Your task to perform on an android device: Open the map Image 0: 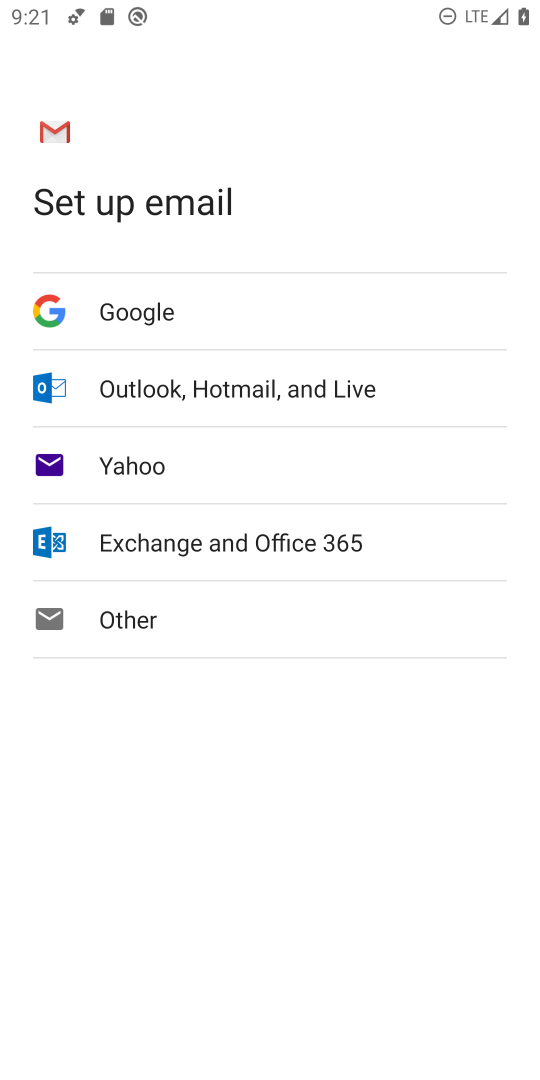
Step 0: press home button
Your task to perform on an android device: Open the map Image 1: 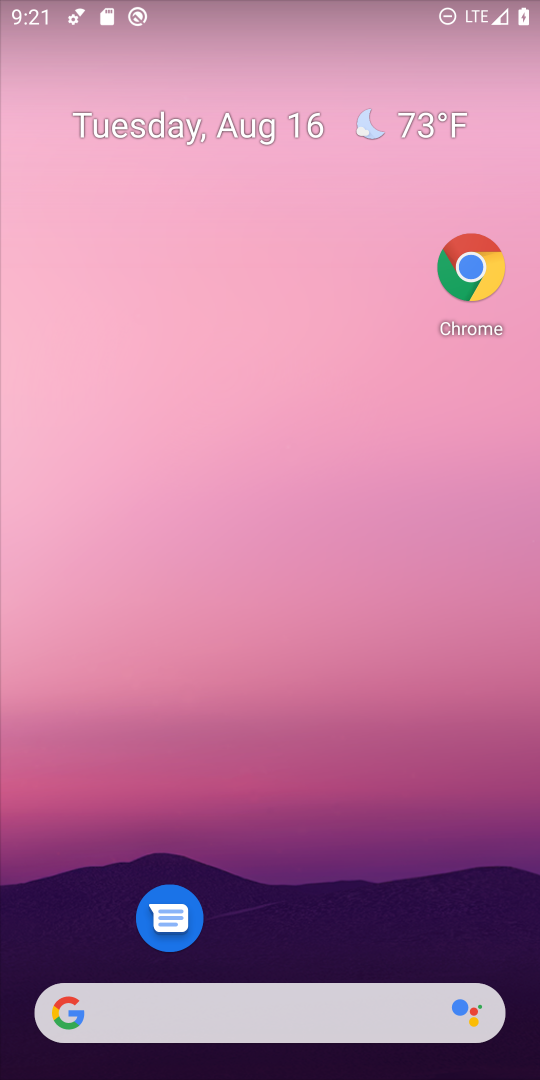
Step 1: drag from (288, 923) to (236, 134)
Your task to perform on an android device: Open the map Image 2: 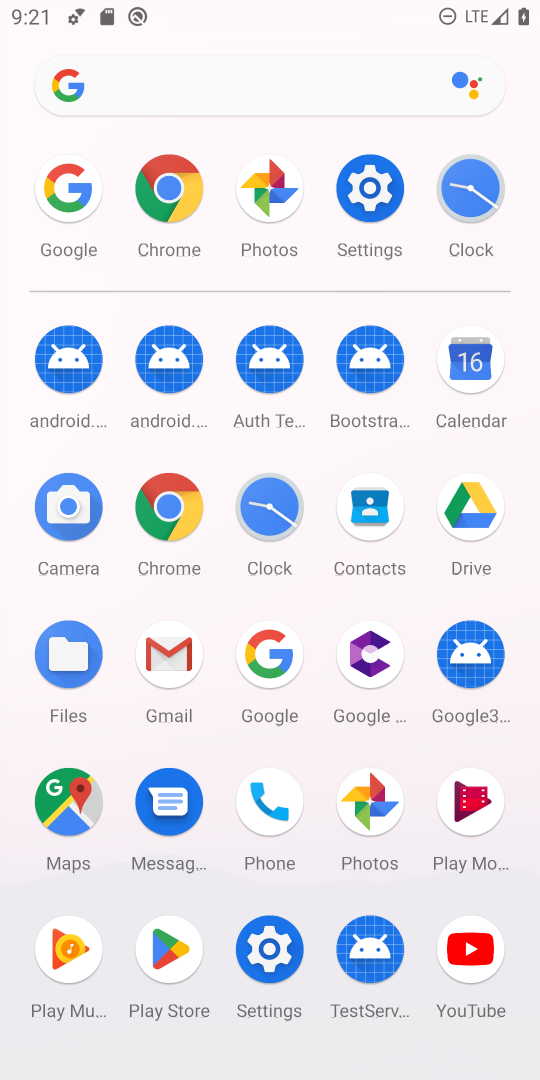
Step 2: click (90, 828)
Your task to perform on an android device: Open the map Image 3: 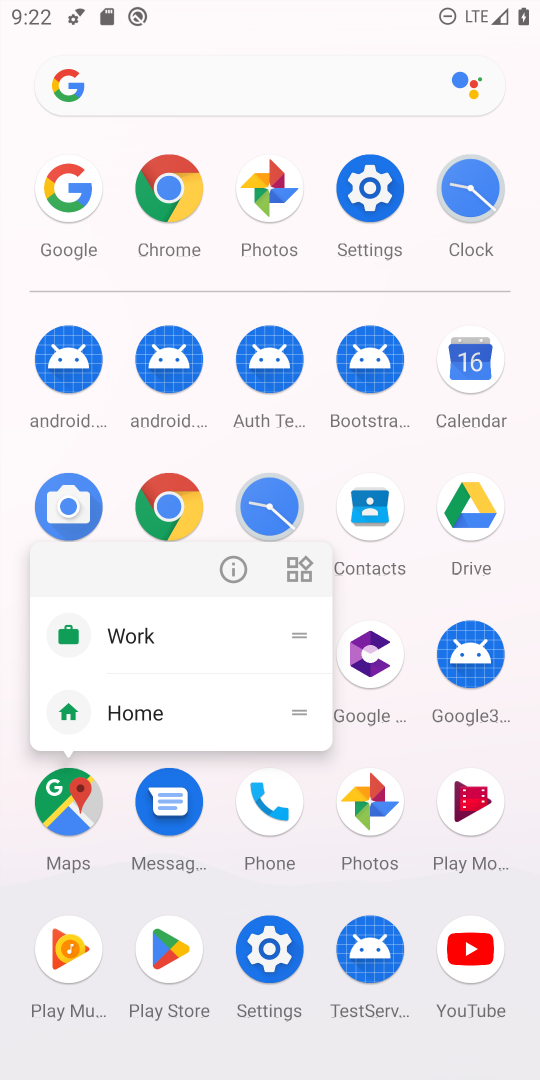
Step 3: click (91, 829)
Your task to perform on an android device: Open the map Image 4: 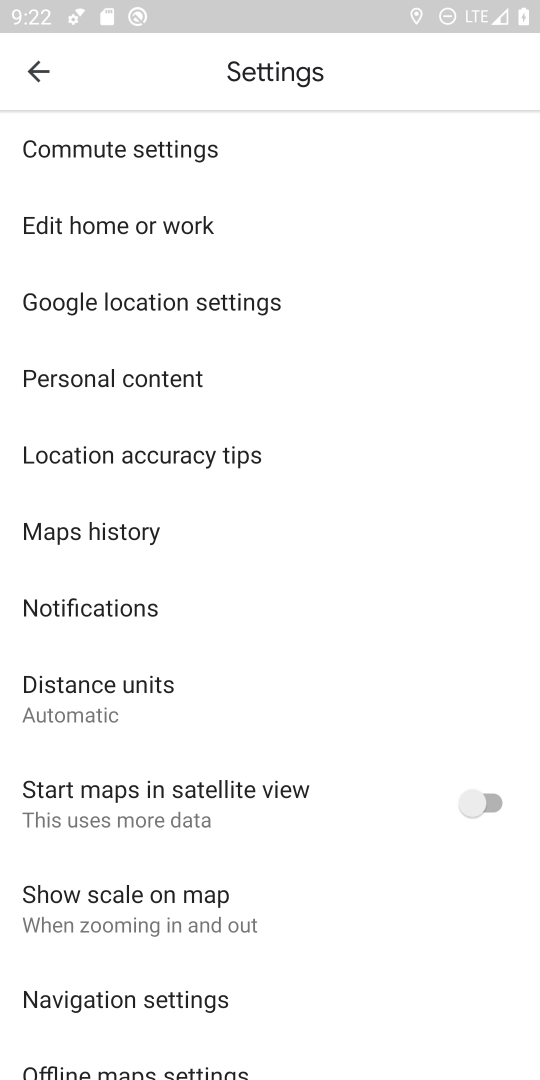
Step 4: task complete